Your task to perform on an android device: Open accessibility settings Image 0: 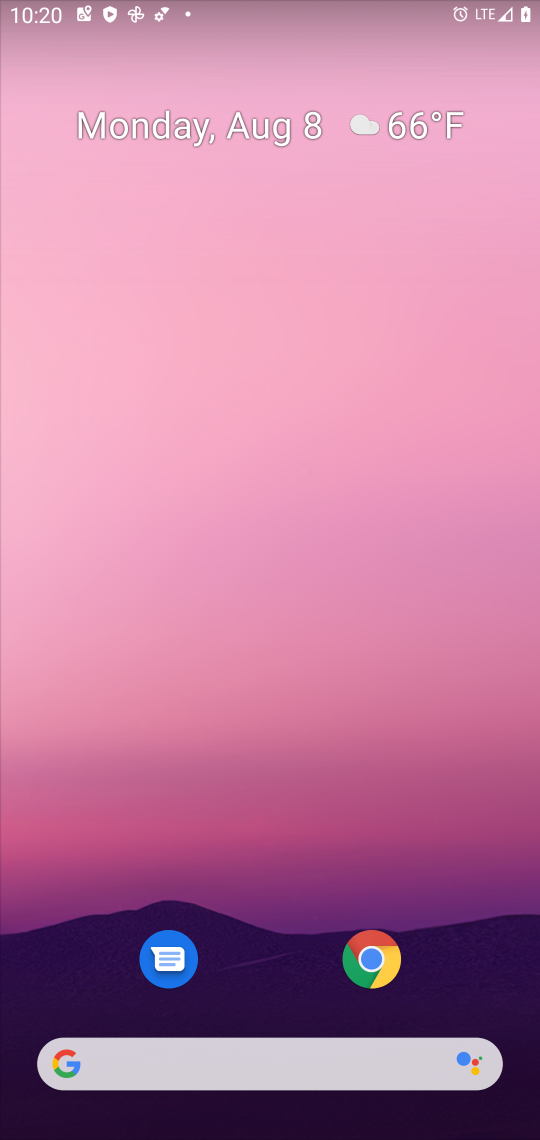
Step 0: drag from (468, 954) to (192, 41)
Your task to perform on an android device: Open accessibility settings Image 1: 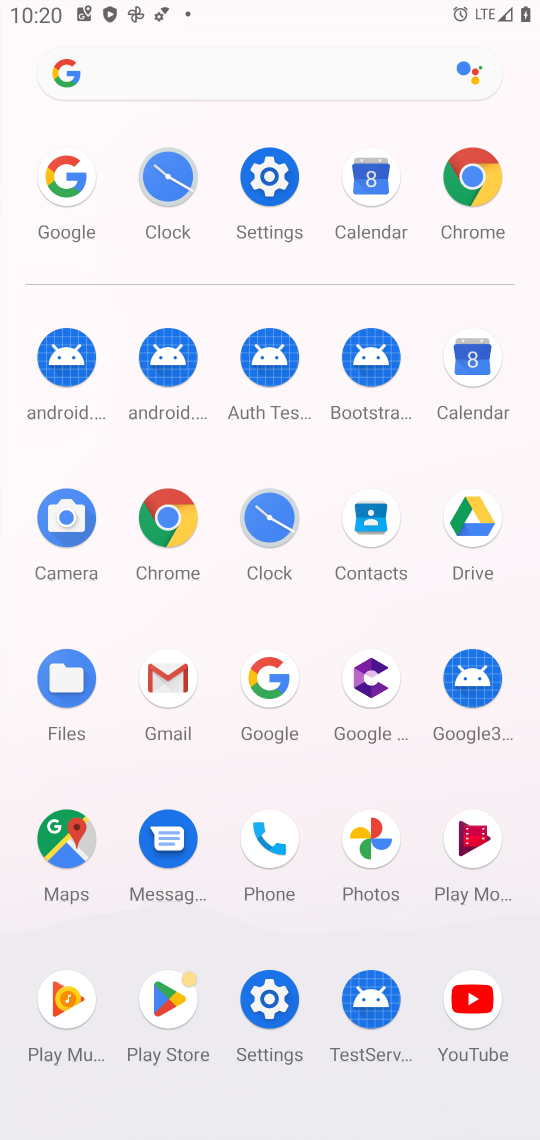
Step 1: click (269, 993)
Your task to perform on an android device: Open accessibility settings Image 2: 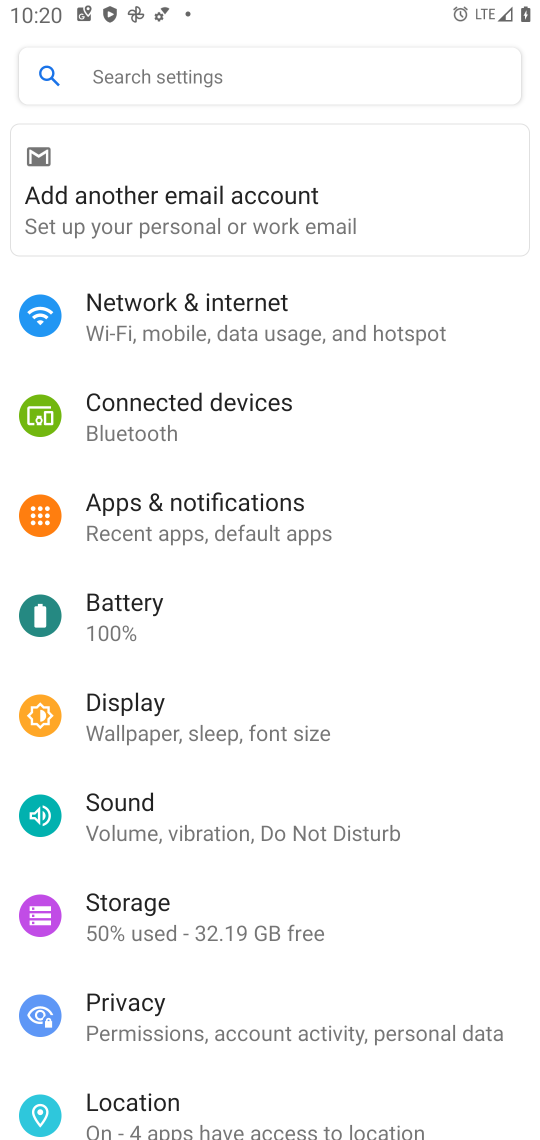
Step 2: drag from (269, 993) to (189, 60)
Your task to perform on an android device: Open accessibility settings Image 3: 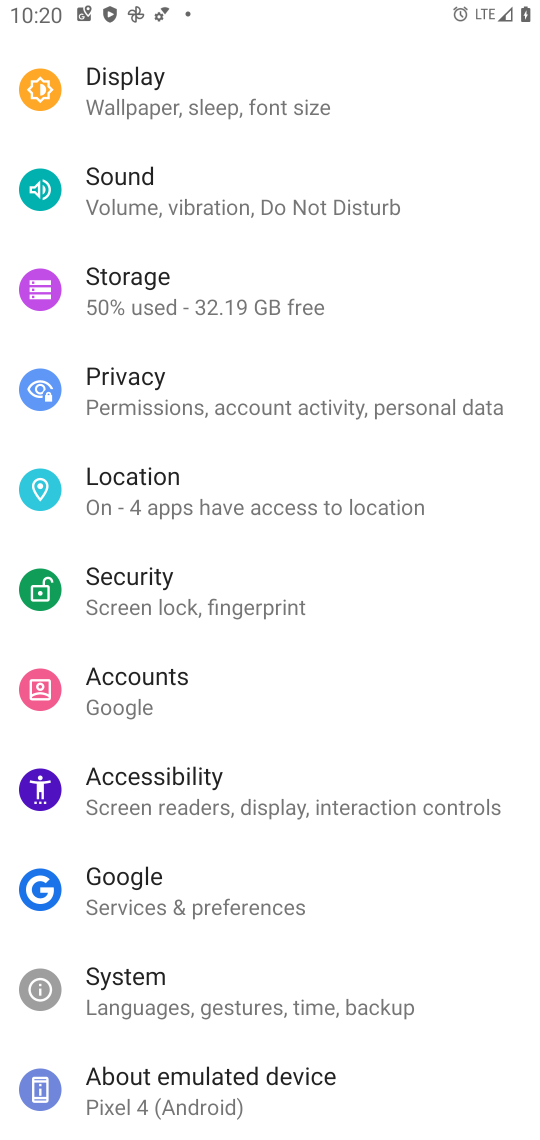
Step 3: click (158, 771)
Your task to perform on an android device: Open accessibility settings Image 4: 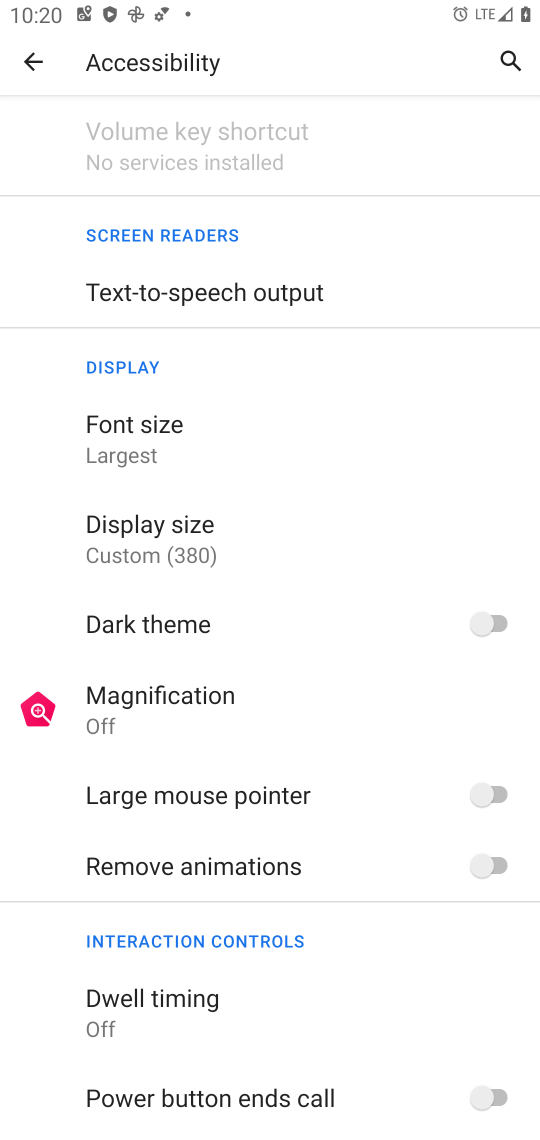
Step 4: task complete